Your task to perform on an android device: open app "HBO Max: Stream TV & Movies" (install if not already installed) Image 0: 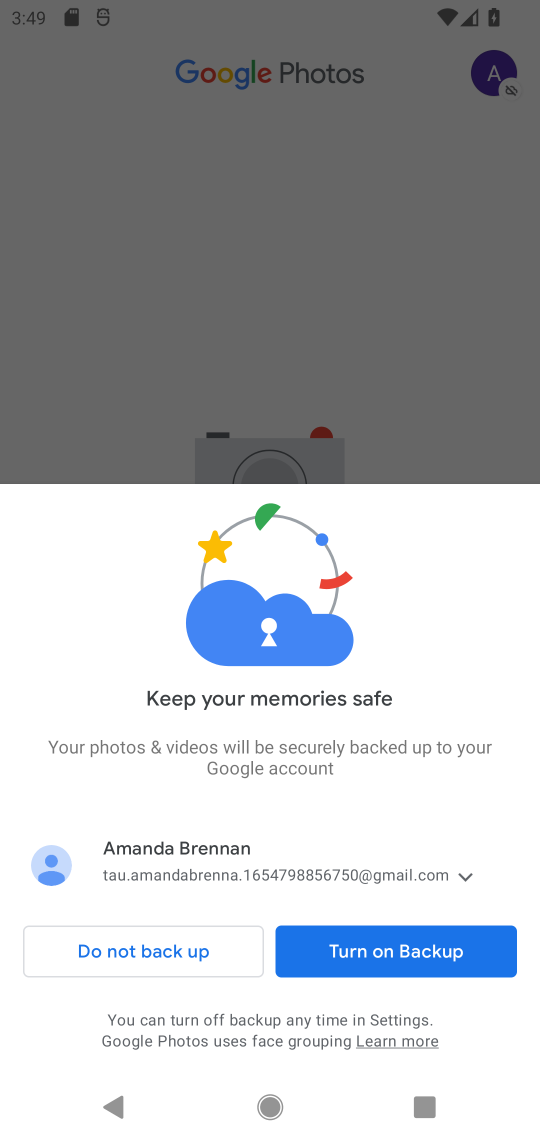
Step 0: press home button
Your task to perform on an android device: open app "HBO Max: Stream TV & Movies" (install if not already installed) Image 1: 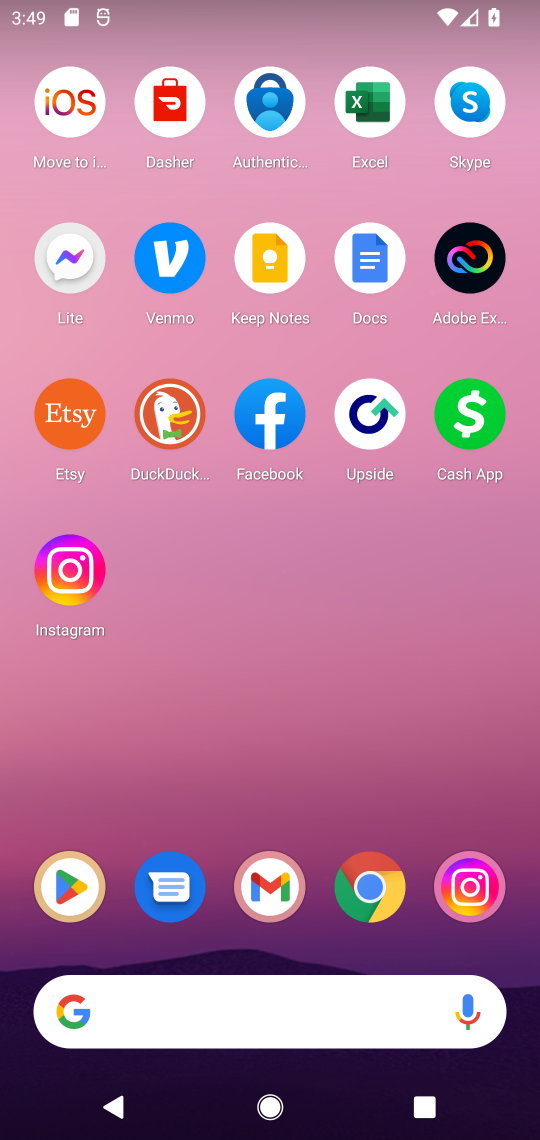
Step 1: click (59, 879)
Your task to perform on an android device: open app "HBO Max: Stream TV & Movies" (install if not already installed) Image 2: 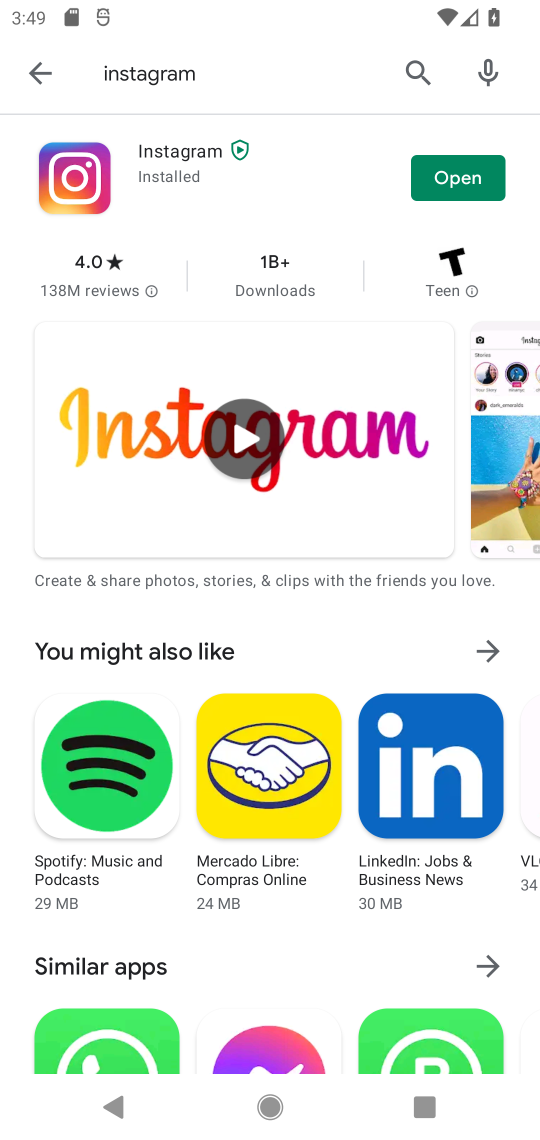
Step 2: click (25, 54)
Your task to perform on an android device: open app "HBO Max: Stream TV & Movies" (install if not already installed) Image 3: 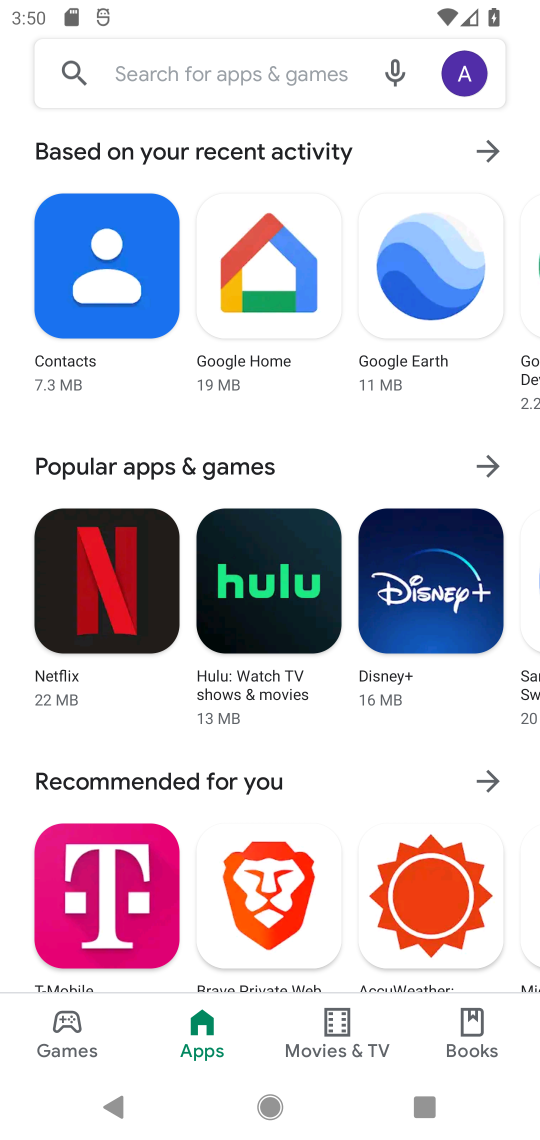
Step 3: click (124, 73)
Your task to perform on an android device: open app "HBO Max: Stream TV & Movies" (install if not already installed) Image 4: 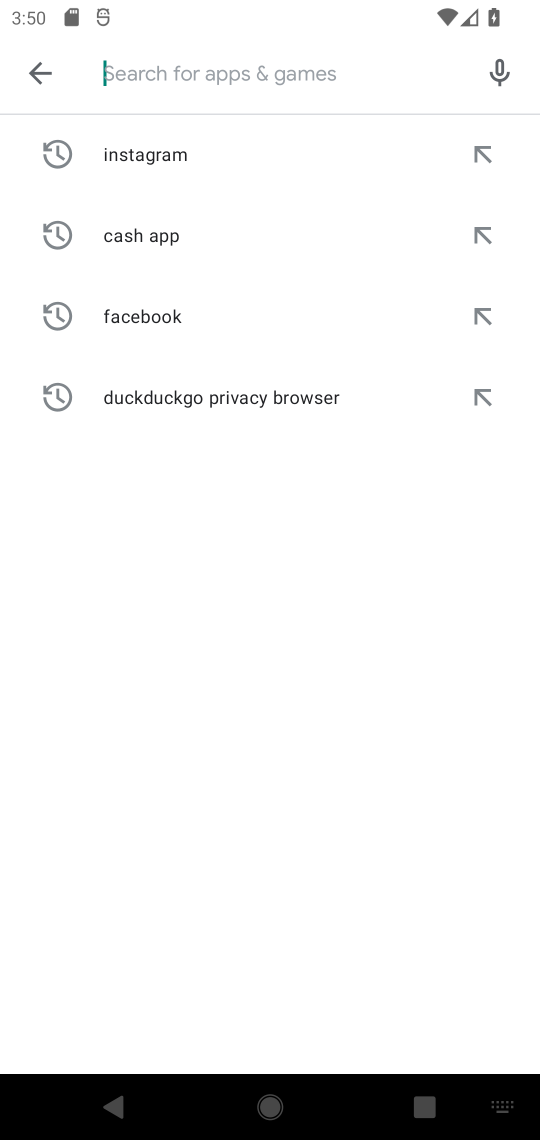
Step 4: type "HBO Max: Stream TV & Movies"
Your task to perform on an android device: open app "HBO Max: Stream TV & Movies" (install if not already installed) Image 5: 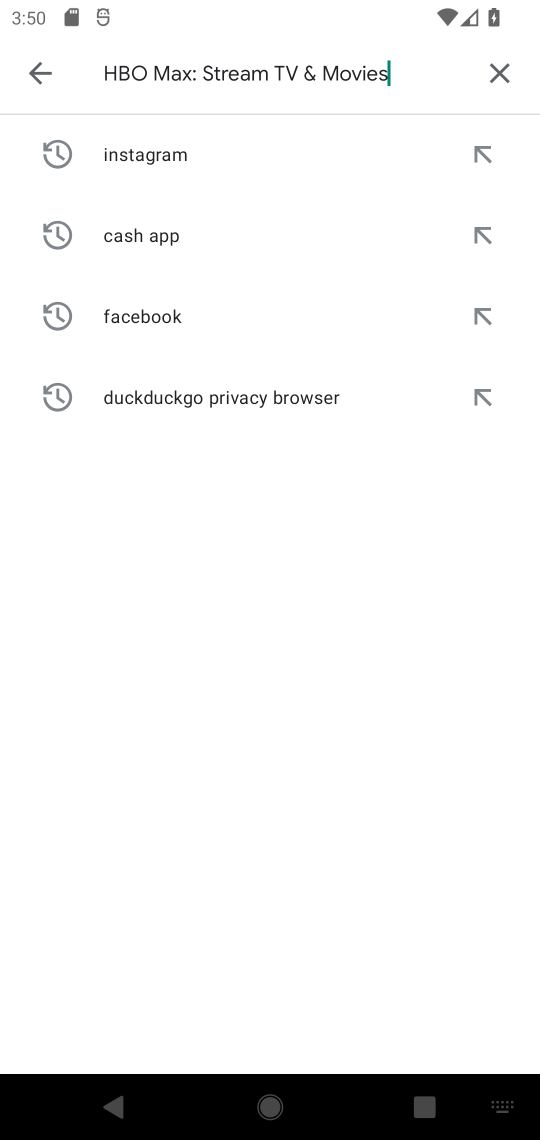
Step 5: type ""
Your task to perform on an android device: open app "HBO Max: Stream TV & Movies" (install if not already installed) Image 6: 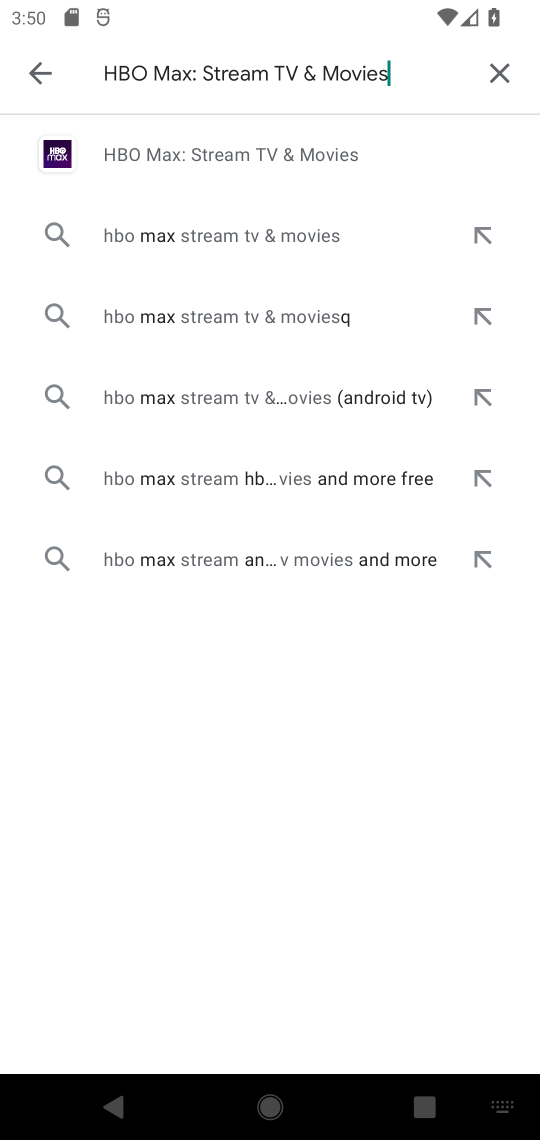
Step 6: click (242, 169)
Your task to perform on an android device: open app "HBO Max: Stream TV & Movies" (install if not already installed) Image 7: 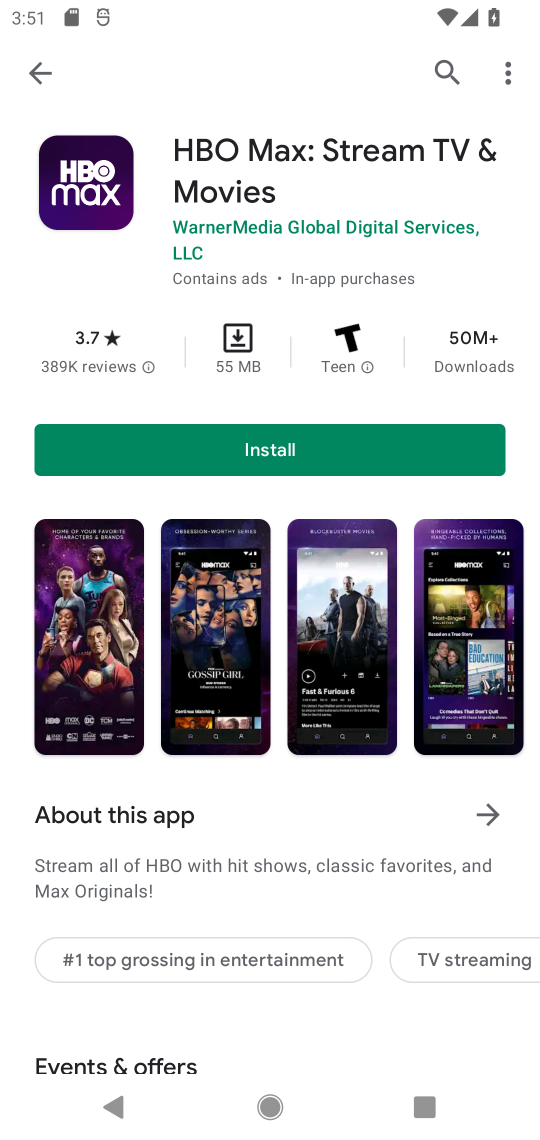
Step 7: click (248, 458)
Your task to perform on an android device: open app "HBO Max: Stream TV & Movies" (install if not already installed) Image 8: 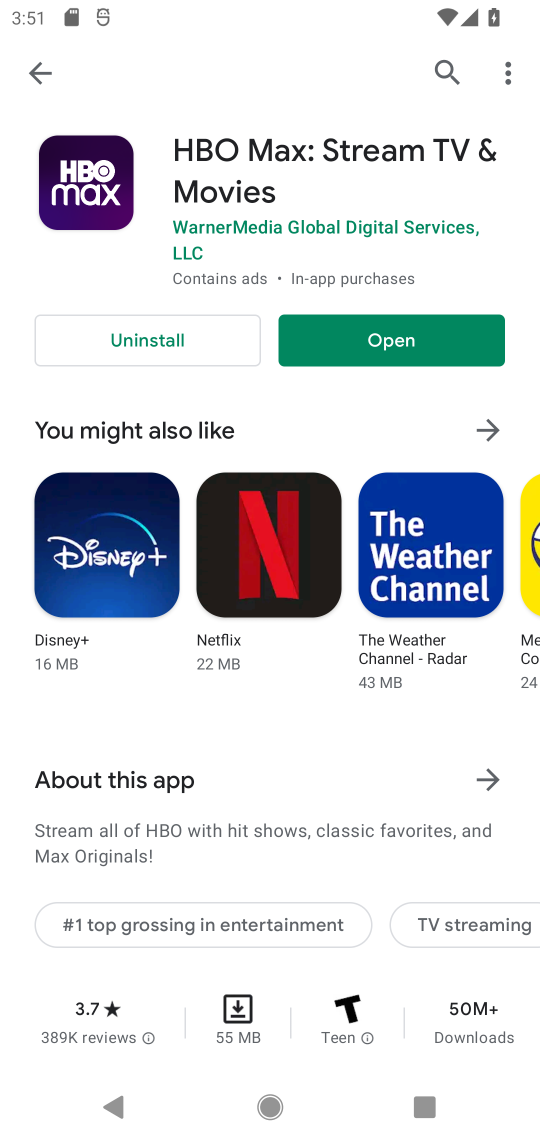
Step 8: click (351, 331)
Your task to perform on an android device: open app "HBO Max: Stream TV & Movies" (install if not already installed) Image 9: 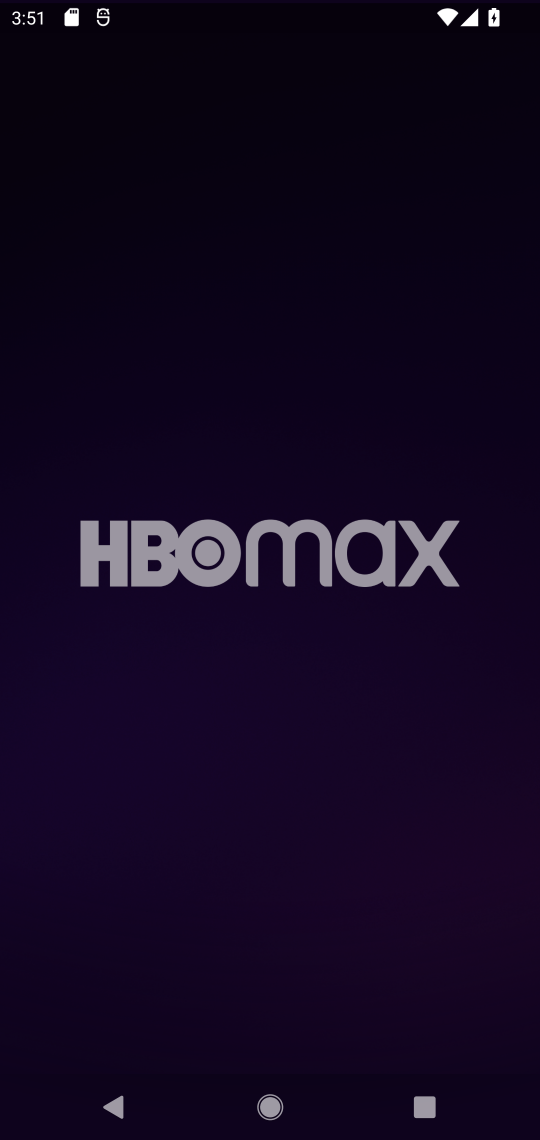
Step 9: task complete